Your task to perform on an android device: Open Youtube and go to "Your channel" Image 0: 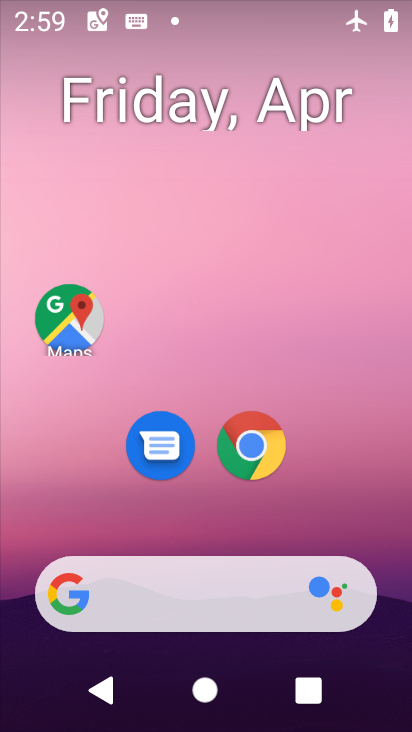
Step 0: drag from (341, 494) to (250, 50)
Your task to perform on an android device: Open Youtube and go to "Your channel" Image 1: 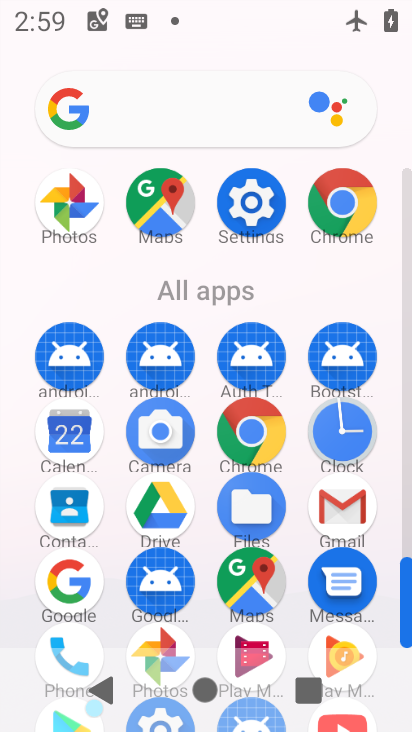
Step 1: drag from (212, 529) to (205, 230)
Your task to perform on an android device: Open Youtube and go to "Your channel" Image 2: 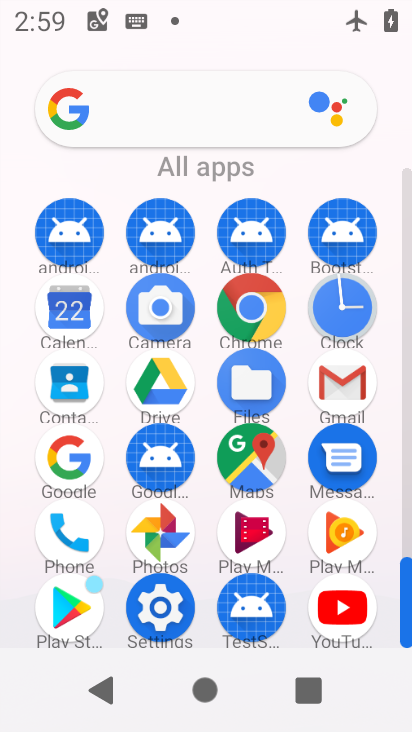
Step 2: click (334, 603)
Your task to perform on an android device: Open Youtube and go to "Your channel" Image 3: 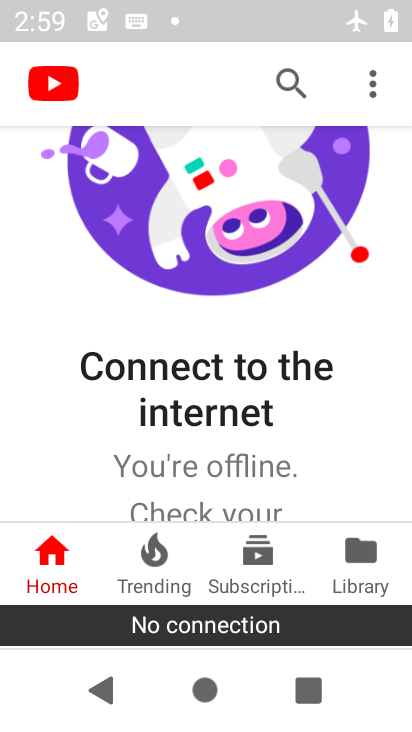
Step 3: click (367, 573)
Your task to perform on an android device: Open Youtube and go to "Your channel" Image 4: 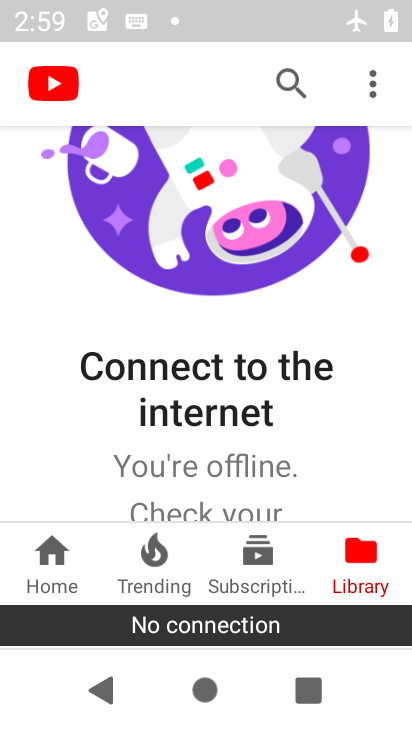
Step 4: task complete